Your task to perform on an android device: turn pop-ups on in chrome Image 0: 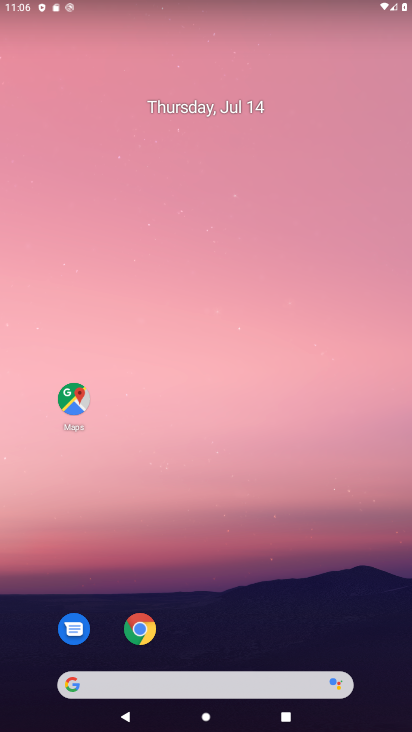
Step 0: drag from (308, 637) to (345, 91)
Your task to perform on an android device: turn pop-ups on in chrome Image 1: 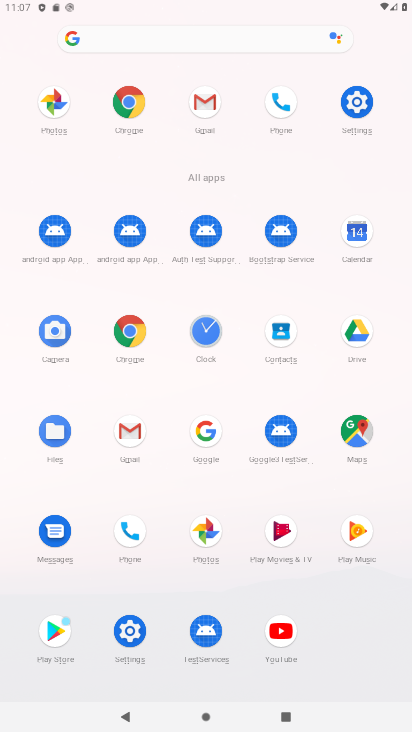
Step 1: click (137, 338)
Your task to perform on an android device: turn pop-ups on in chrome Image 2: 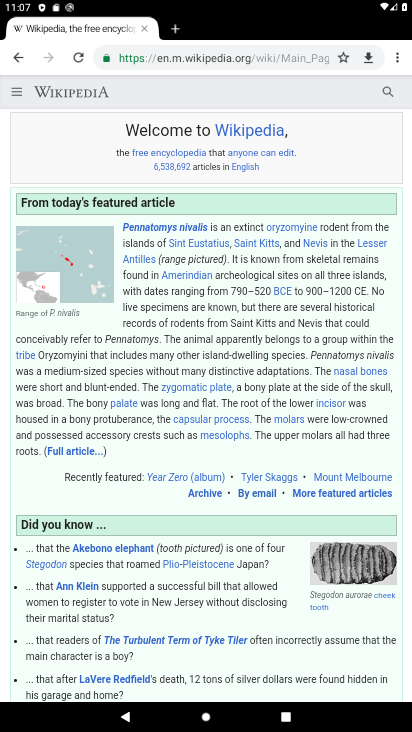
Step 2: click (405, 65)
Your task to perform on an android device: turn pop-ups on in chrome Image 3: 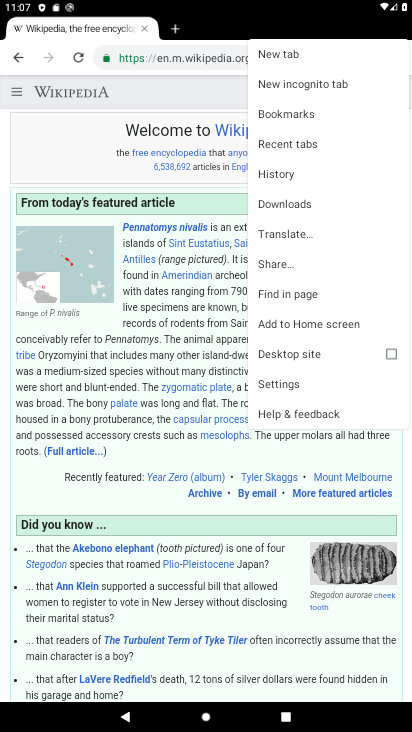
Step 3: click (265, 388)
Your task to perform on an android device: turn pop-ups on in chrome Image 4: 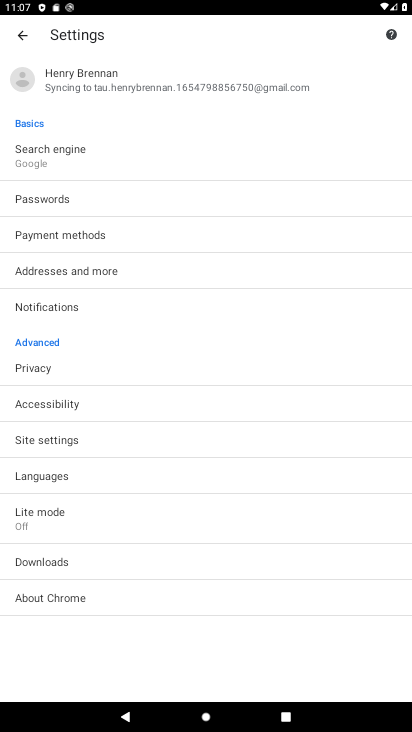
Step 4: click (44, 442)
Your task to perform on an android device: turn pop-ups on in chrome Image 5: 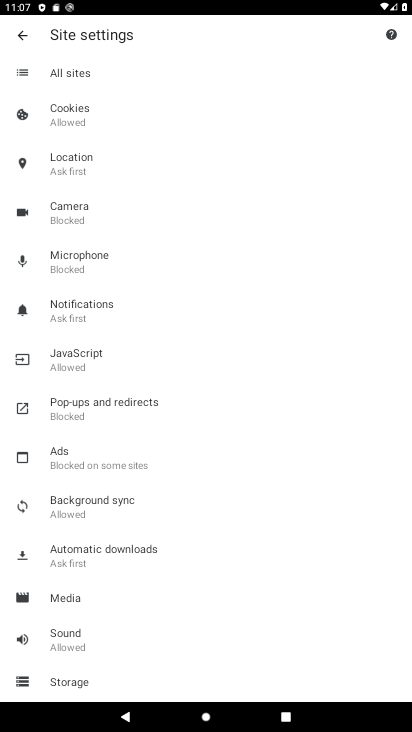
Step 5: click (106, 416)
Your task to perform on an android device: turn pop-ups on in chrome Image 6: 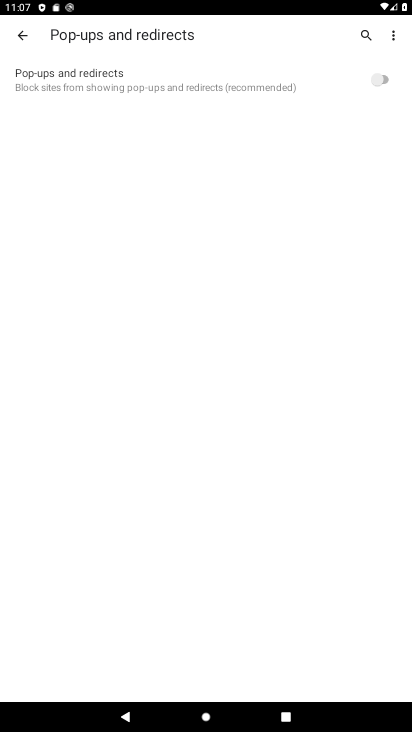
Step 6: click (199, 93)
Your task to perform on an android device: turn pop-ups on in chrome Image 7: 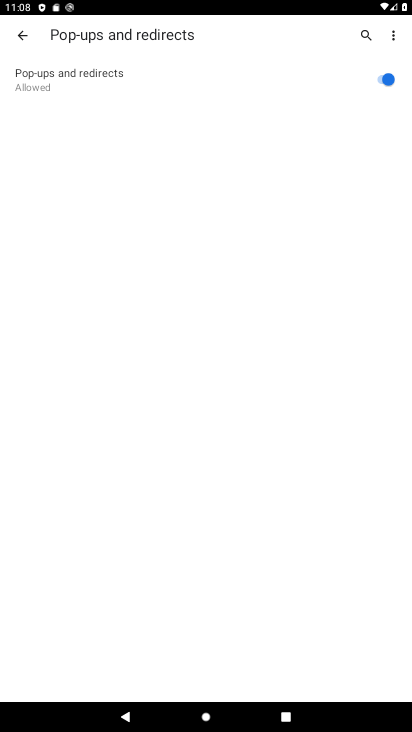
Step 7: task complete